Your task to perform on an android device: Show me popular games on the Play Store Image 0: 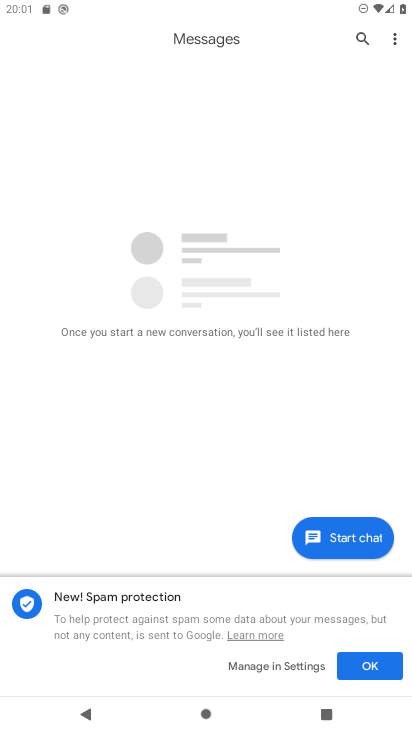
Step 0: press home button
Your task to perform on an android device: Show me popular games on the Play Store Image 1: 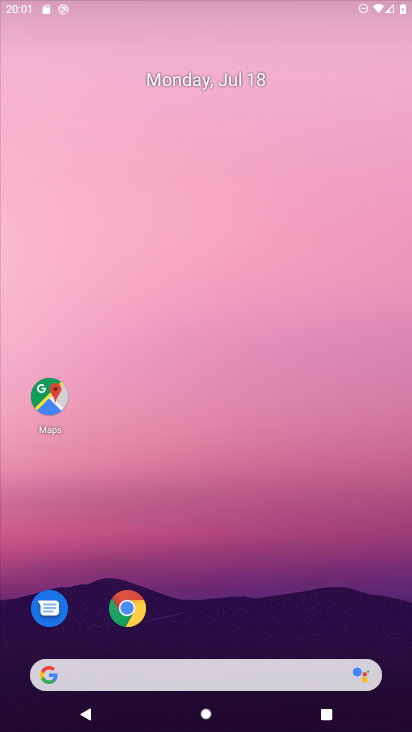
Step 1: drag from (172, 611) to (186, 91)
Your task to perform on an android device: Show me popular games on the Play Store Image 2: 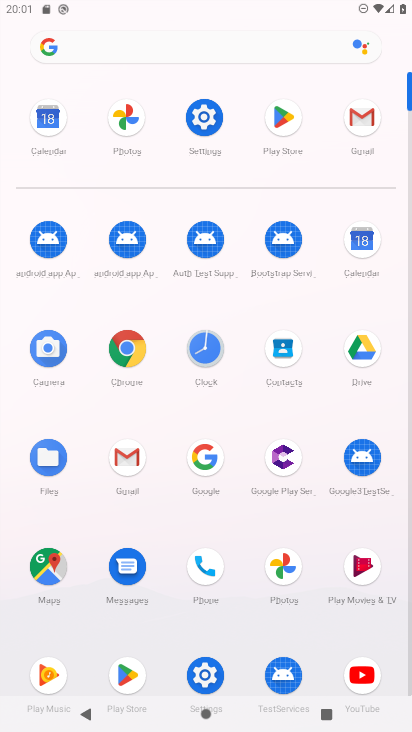
Step 2: click (129, 669)
Your task to perform on an android device: Show me popular games on the Play Store Image 3: 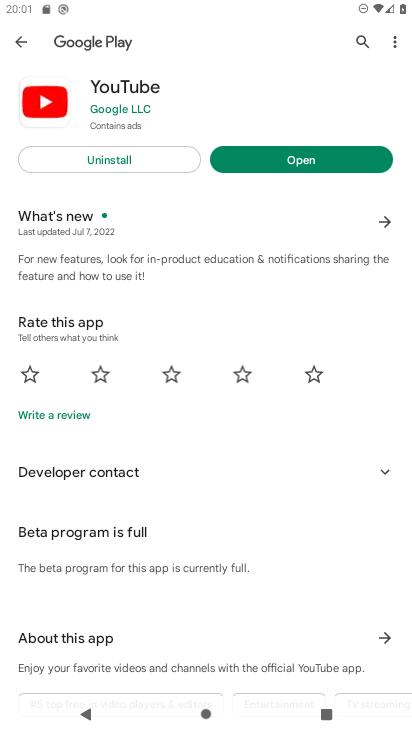
Step 3: drag from (281, 154) to (303, 7)
Your task to perform on an android device: Show me popular games on the Play Store Image 4: 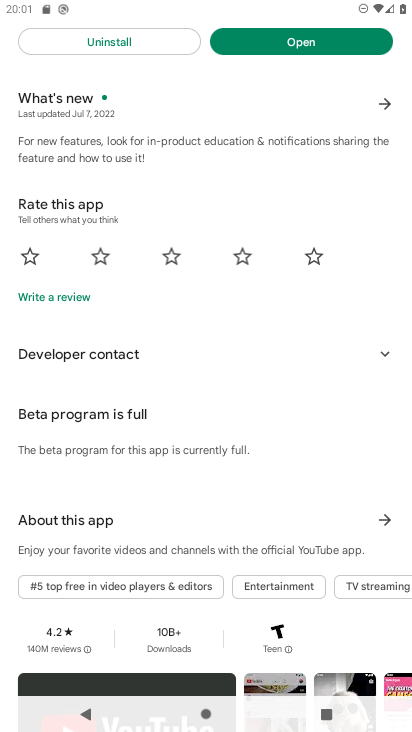
Step 4: press back button
Your task to perform on an android device: Show me popular games on the Play Store Image 5: 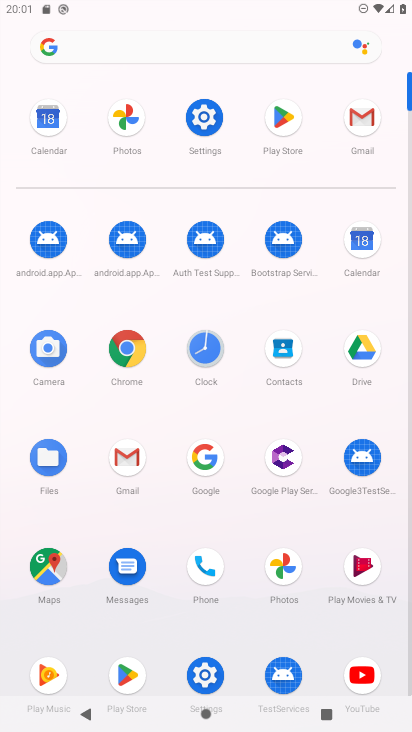
Step 5: click (117, 676)
Your task to perform on an android device: Show me popular games on the Play Store Image 6: 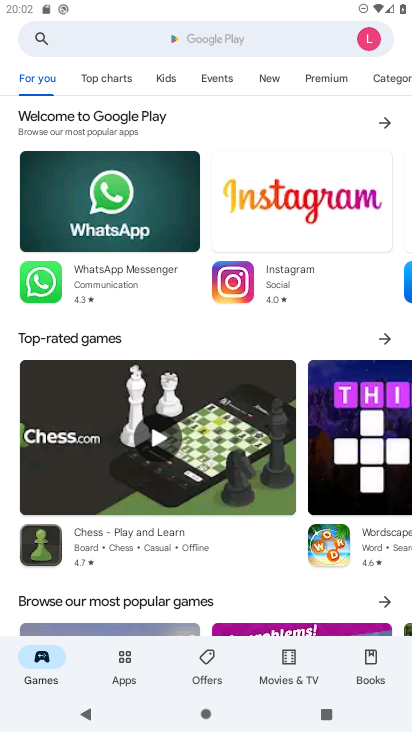
Step 6: click (258, 595)
Your task to perform on an android device: Show me popular games on the Play Store Image 7: 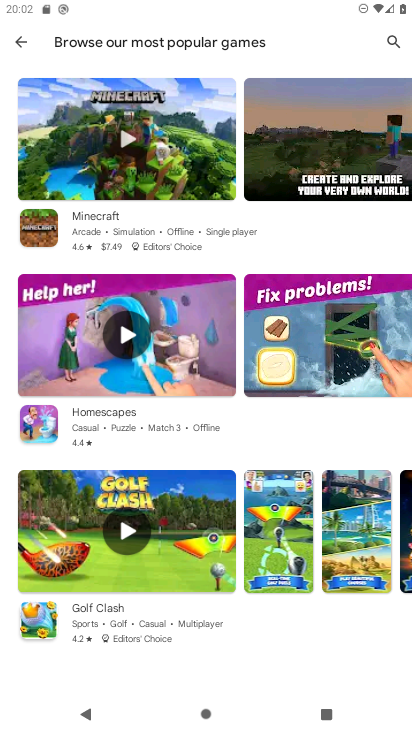
Step 7: task complete